Your task to perform on an android device: Open the Play Movies app and select the watchlist tab. Image 0: 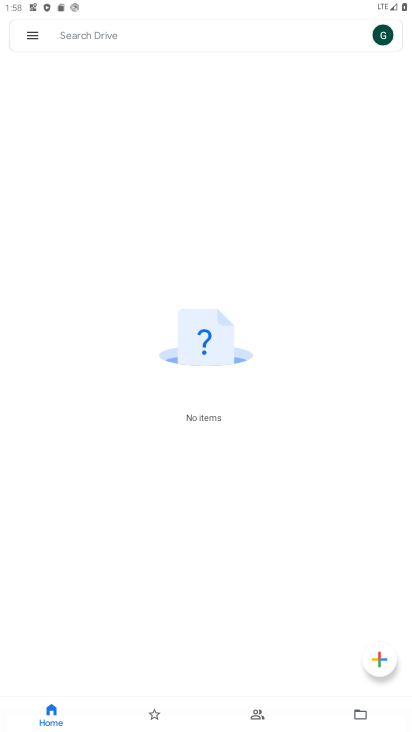
Step 0: press home button
Your task to perform on an android device: Open the Play Movies app and select the watchlist tab. Image 1: 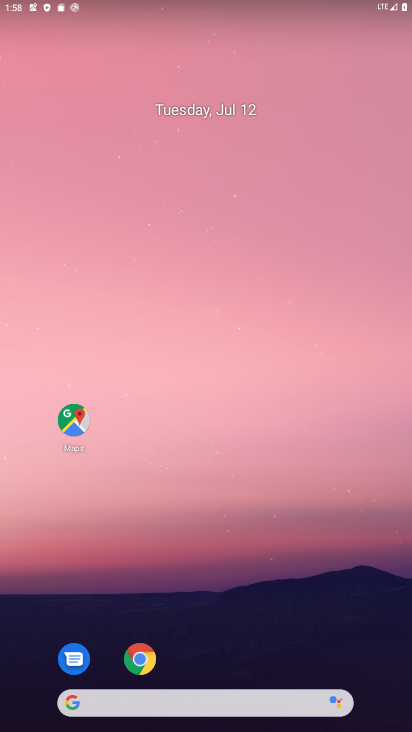
Step 1: drag from (210, 730) to (180, 222)
Your task to perform on an android device: Open the Play Movies app and select the watchlist tab. Image 2: 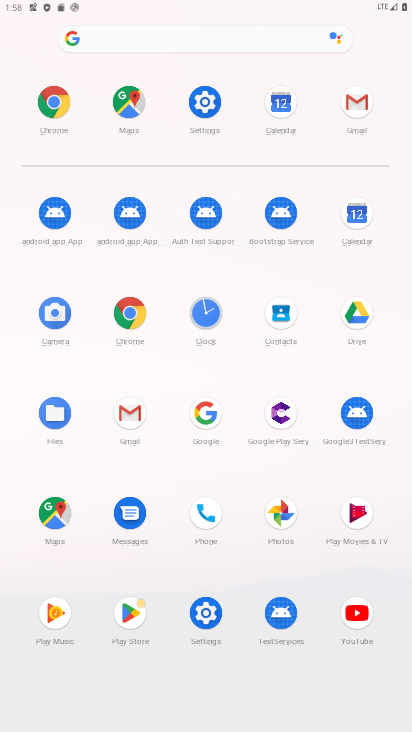
Step 2: click (354, 512)
Your task to perform on an android device: Open the Play Movies app and select the watchlist tab. Image 3: 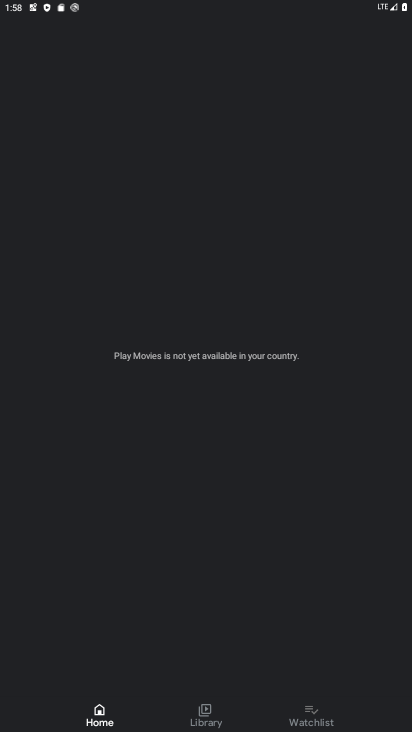
Step 3: click (303, 719)
Your task to perform on an android device: Open the Play Movies app and select the watchlist tab. Image 4: 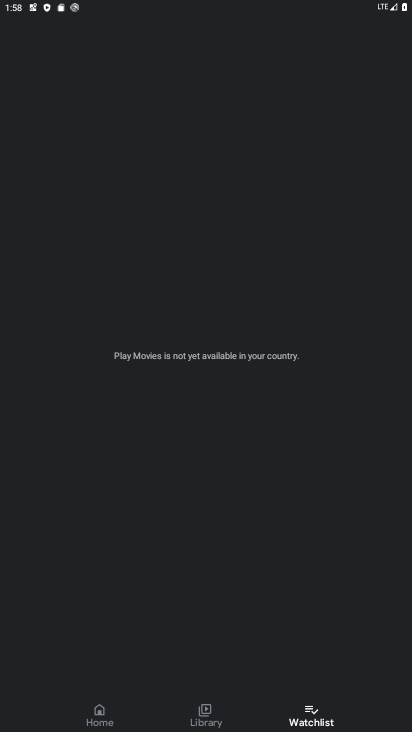
Step 4: task complete